Your task to perform on an android device: visit the assistant section in the google photos Image 0: 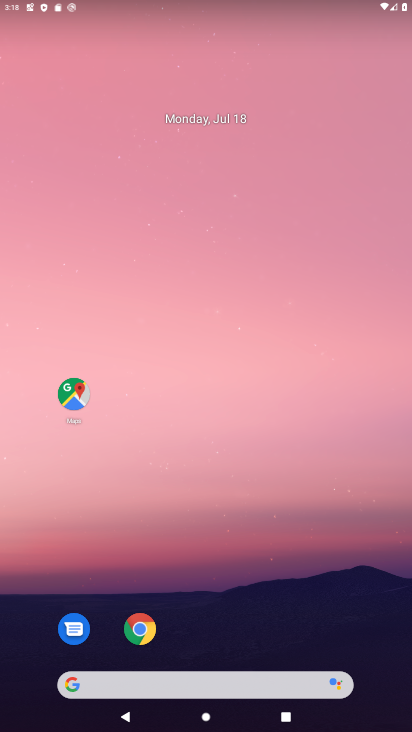
Step 0: drag from (248, 636) to (225, 203)
Your task to perform on an android device: visit the assistant section in the google photos Image 1: 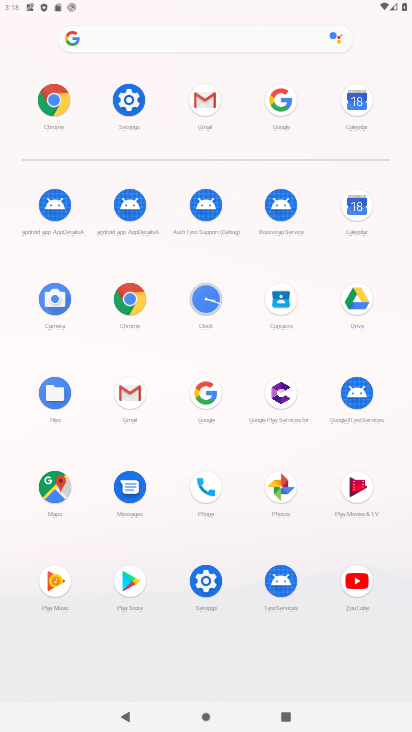
Step 1: click (278, 492)
Your task to perform on an android device: visit the assistant section in the google photos Image 2: 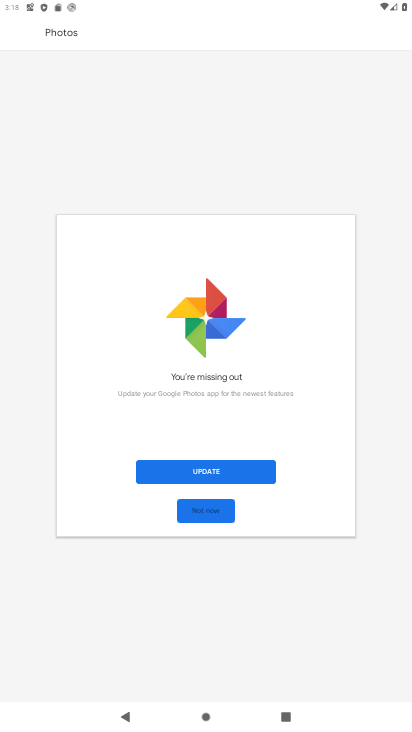
Step 2: click (206, 505)
Your task to perform on an android device: visit the assistant section in the google photos Image 3: 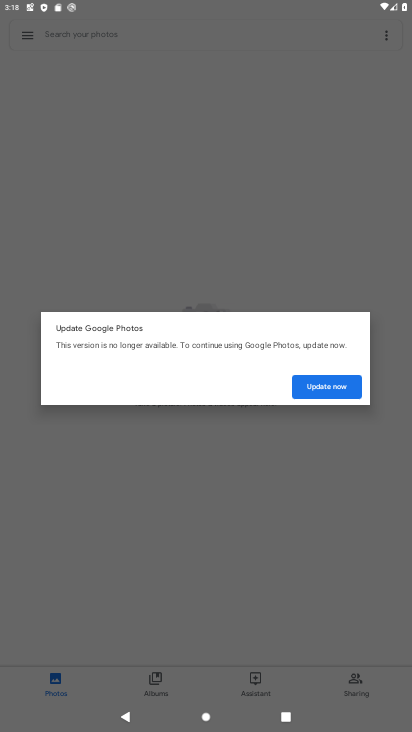
Step 3: click (279, 671)
Your task to perform on an android device: visit the assistant section in the google photos Image 4: 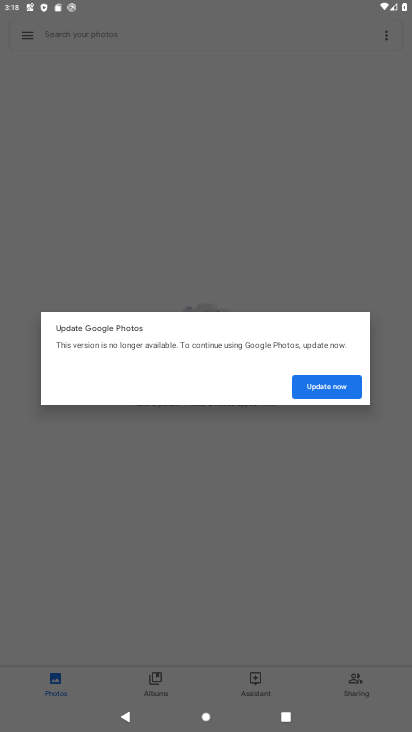
Step 4: click (270, 674)
Your task to perform on an android device: visit the assistant section in the google photos Image 5: 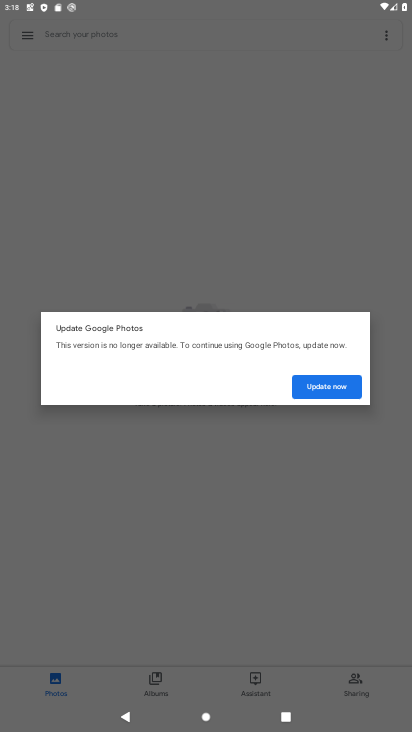
Step 5: click (315, 381)
Your task to perform on an android device: visit the assistant section in the google photos Image 6: 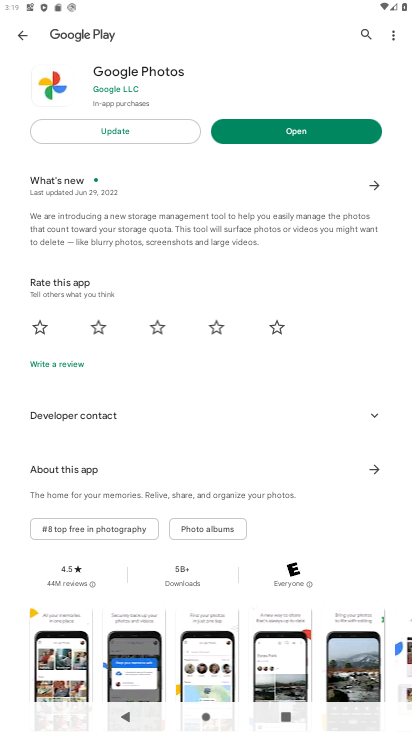
Step 6: click (286, 133)
Your task to perform on an android device: visit the assistant section in the google photos Image 7: 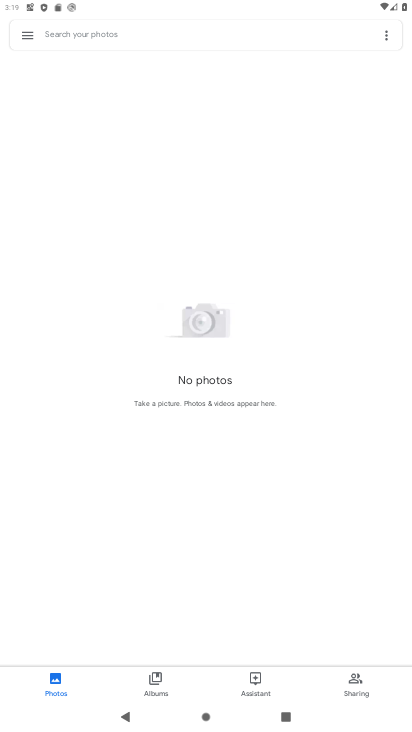
Step 7: click (248, 688)
Your task to perform on an android device: visit the assistant section in the google photos Image 8: 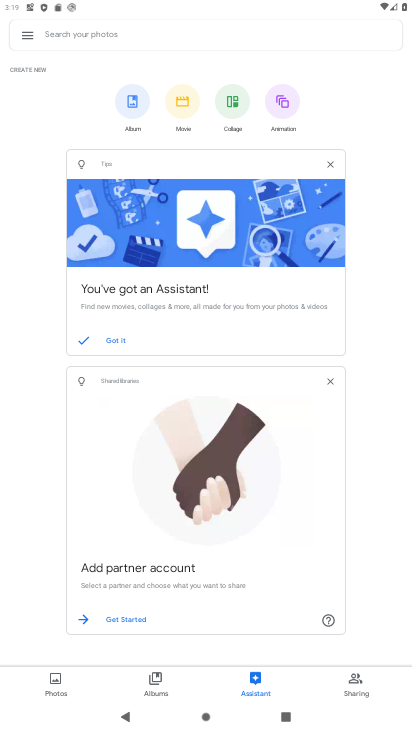
Step 8: task complete